Your task to perform on an android device: open a bookmark in the chrome app Image 0: 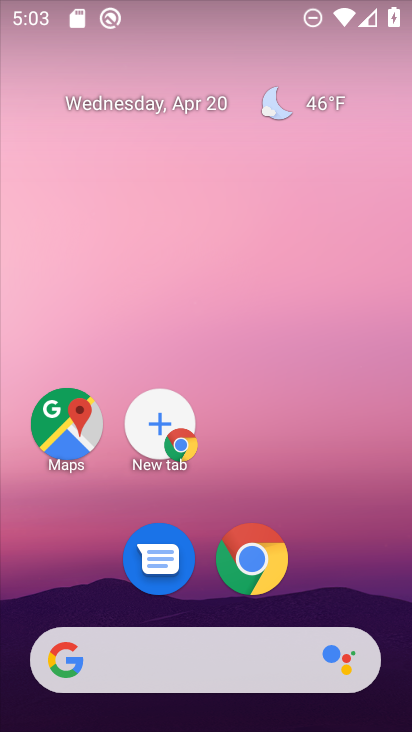
Step 0: click (278, 574)
Your task to perform on an android device: open a bookmark in the chrome app Image 1: 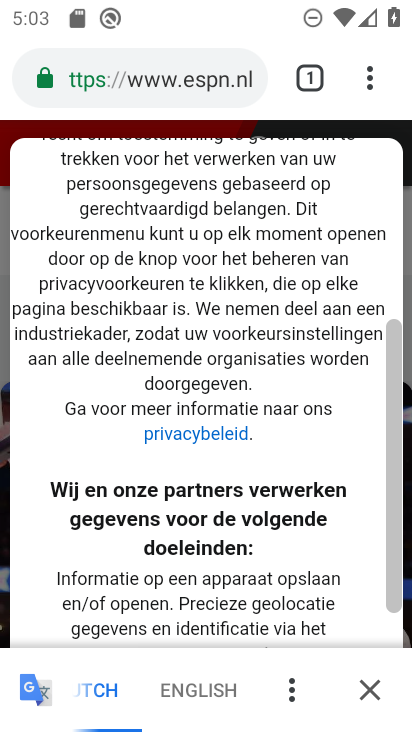
Step 1: click (382, 92)
Your task to perform on an android device: open a bookmark in the chrome app Image 2: 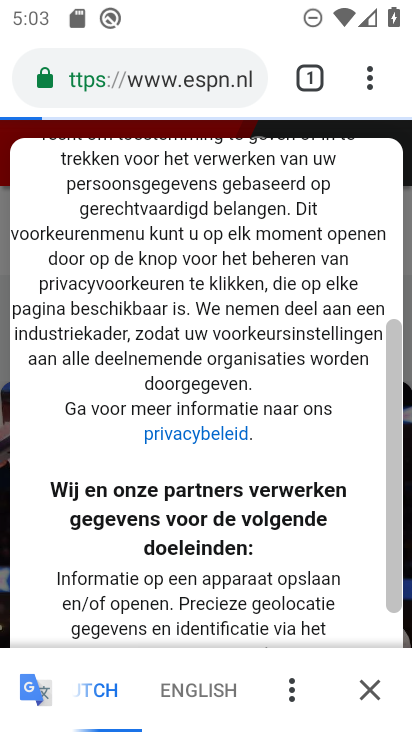
Step 2: click (370, 82)
Your task to perform on an android device: open a bookmark in the chrome app Image 3: 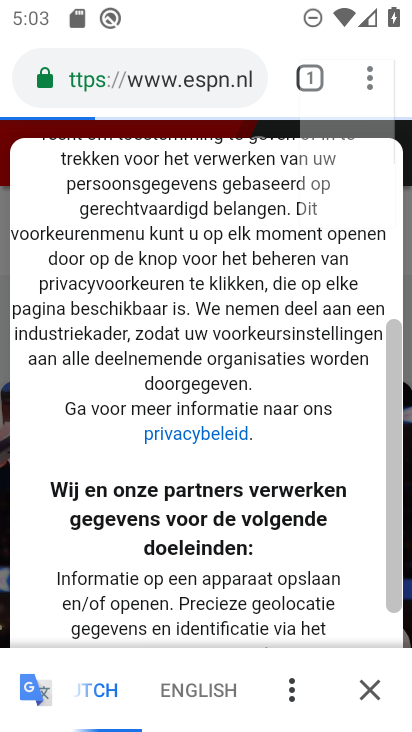
Step 3: click (370, 82)
Your task to perform on an android device: open a bookmark in the chrome app Image 4: 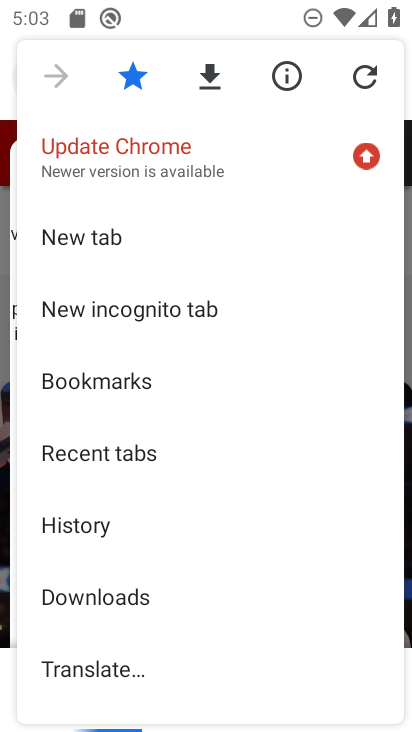
Step 4: click (169, 394)
Your task to perform on an android device: open a bookmark in the chrome app Image 5: 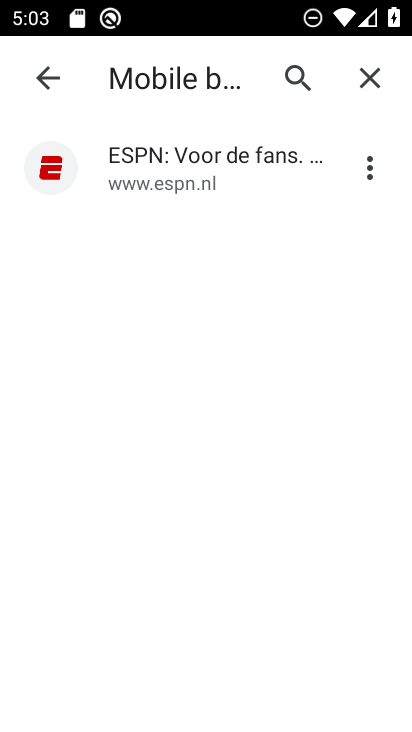
Step 5: click (162, 187)
Your task to perform on an android device: open a bookmark in the chrome app Image 6: 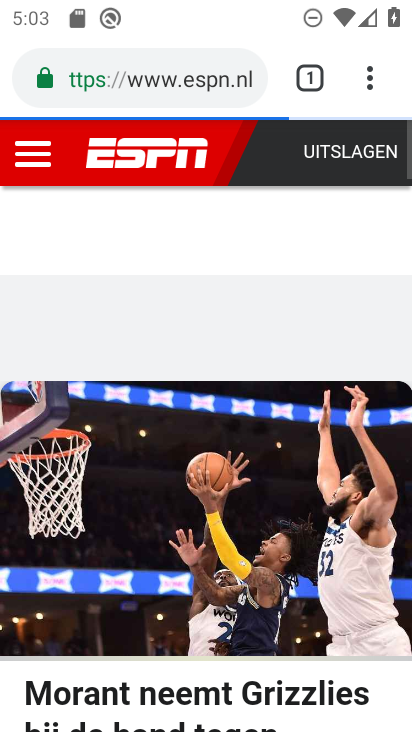
Step 6: task complete